Your task to perform on an android device: change the clock style Image 0: 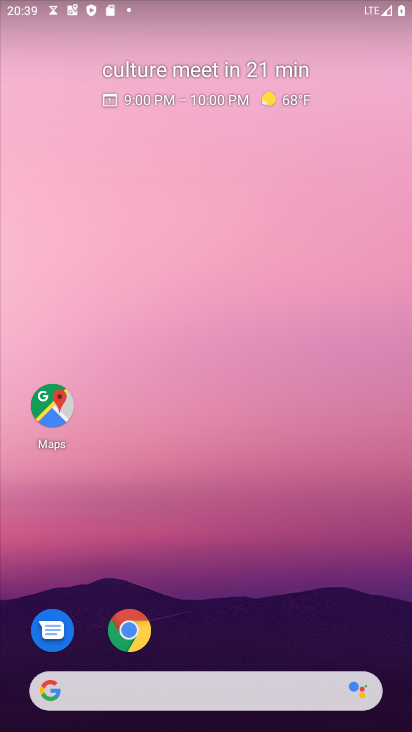
Step 0: drag from (264, 602) to (198, 61)
Your task to perform on an android device: change the clock style Image 1: 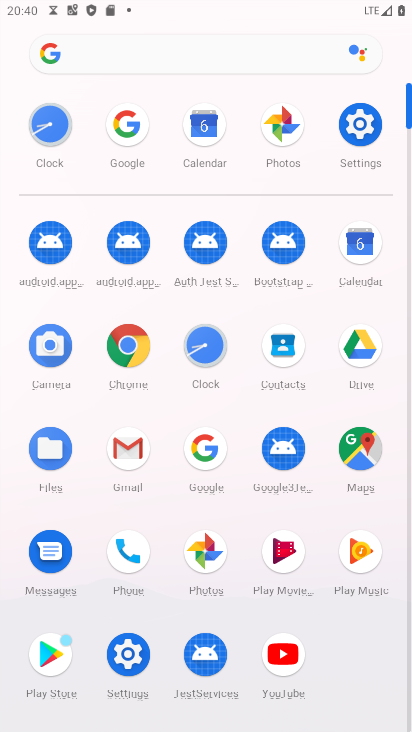
Step 1: click (205, 345)
Your task to perform on an android device: change the clock style Image 2: 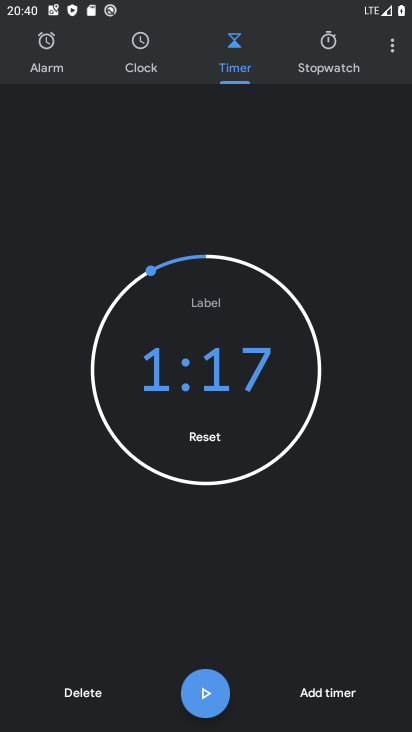
Step 2: click (392, 43)
Your task to perform on an android device: change the clock style Image 3: 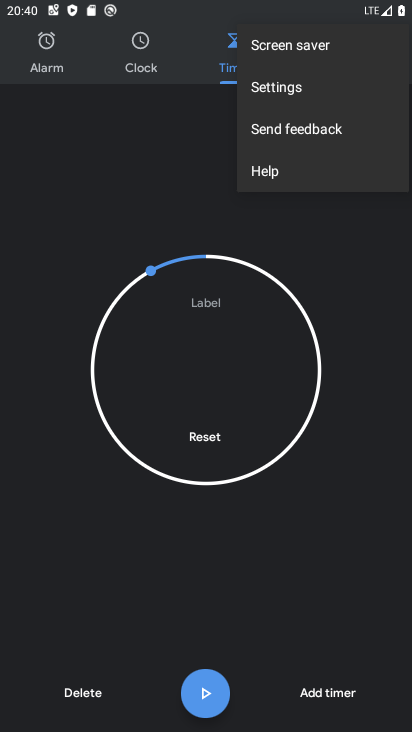
Step 3: click (278, 88)
Your task to perform on an android device: change the clock style Image 4: 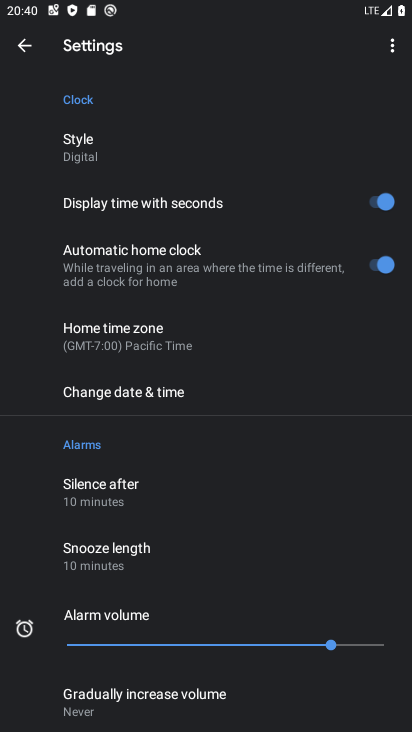
Step 4: click (107, 151)
Your task to perform on an android device: change the clock style Image 5: 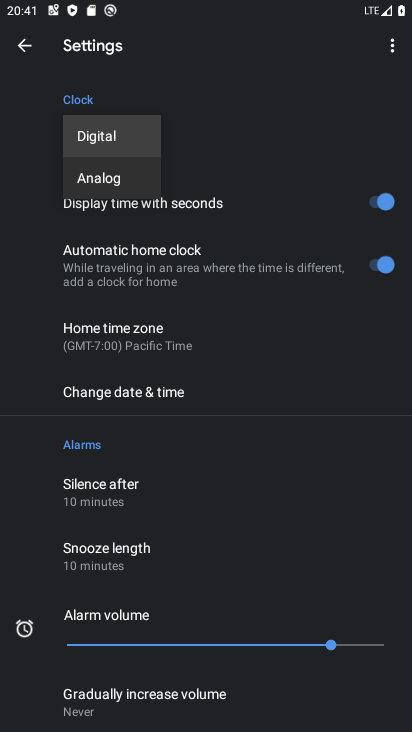
Step 5: click (100, 183)
Your task to perform on an android device: change the clock style Image 6: 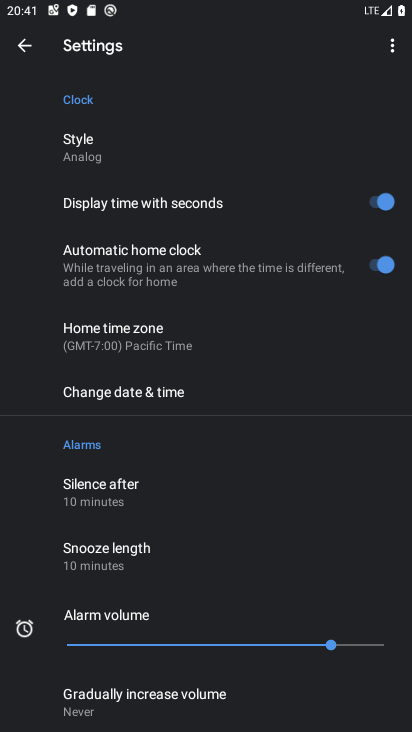
Step 6: task complete